Your task to perform on an android device: toggle sleep mode Image 0: 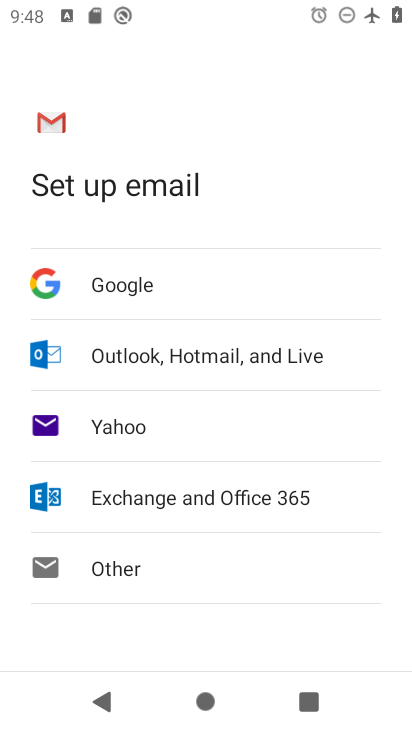
Step 0: press home button
Your task to perform on an android device: toggle sleep mode Image 1: 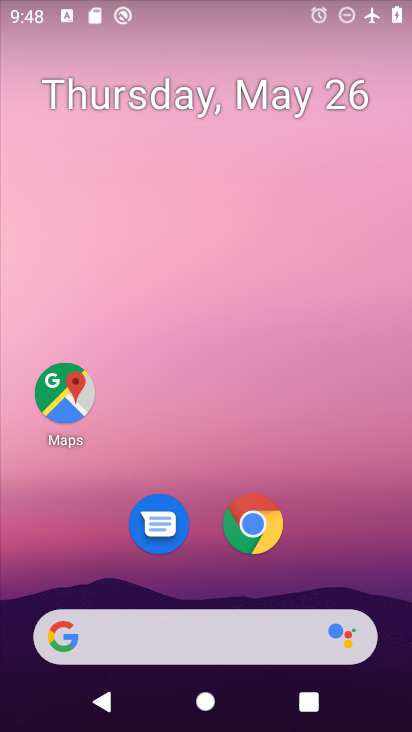
Step 1: drag from (222, 449) to (227, 0)
Your task to perform on an android device: toggle sleep mode Image 2: 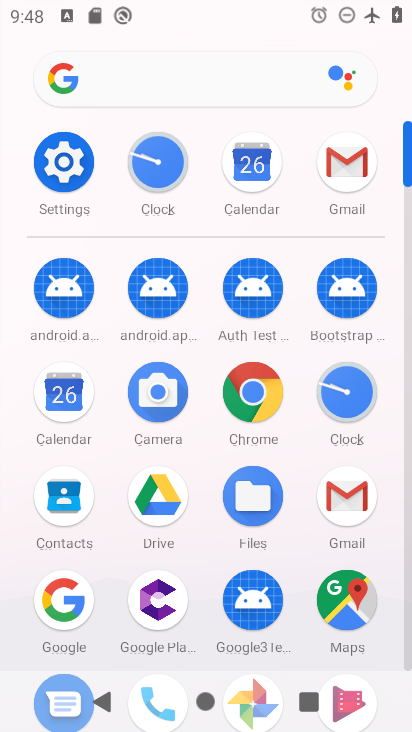
Step 2: click (60, 155)
Your task to perform on an android device: toggle sleep mode Image 3: 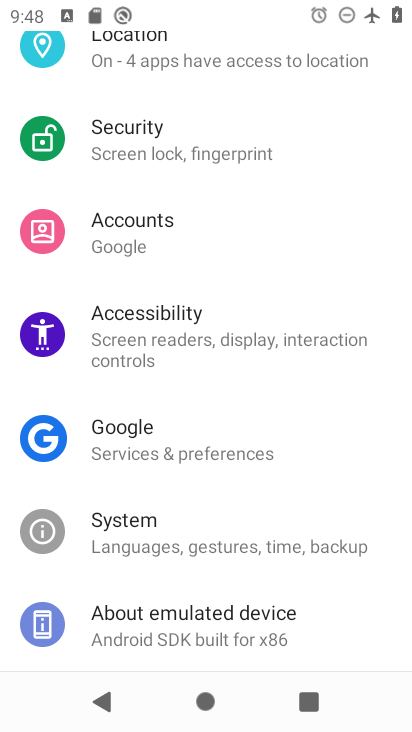
Step 3: drag from (225, 103) to (271, 627)
Your task to perform on an android device: toggle sleep mode Image 4: 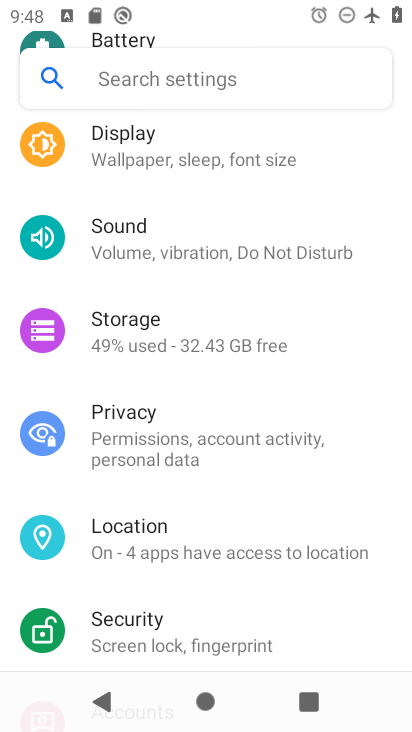
Step 4: click (203, 145)
Your task to perform on an android device: toggle sleep mode Image 5: 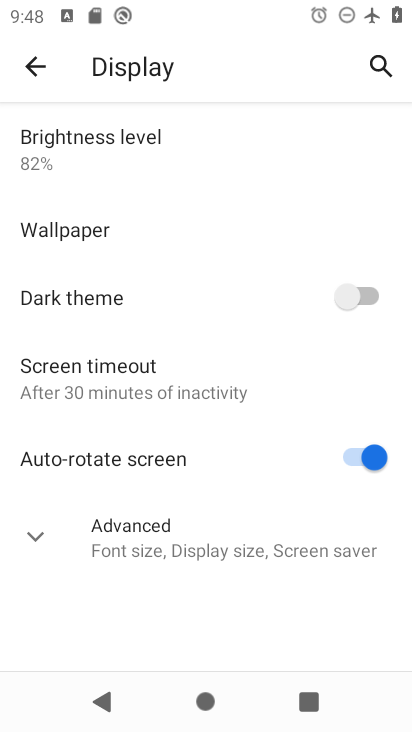
Step 5: click (38, 533)
Your task to perform on an android device: toggle sleep mode Image 6: 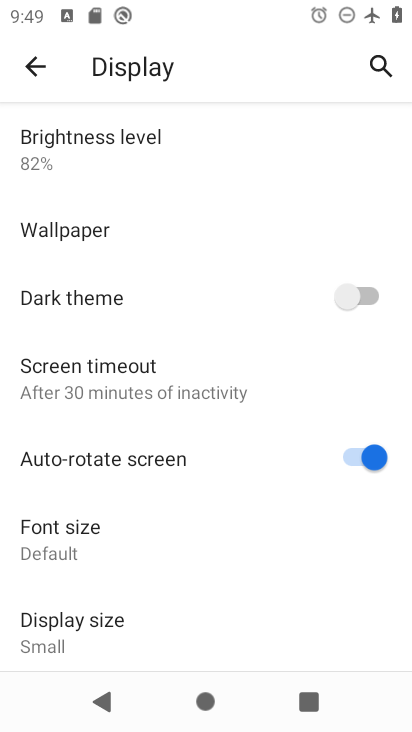
Step 6: task complete